Your task to perform on an android device: Go to Google maps Image 0: 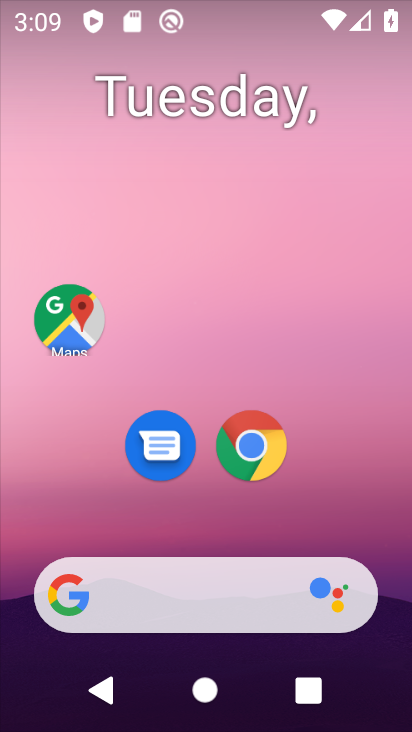
Step 0: click (75, 318)
Your task to perform on an android device: Go to Google maps Image 1: 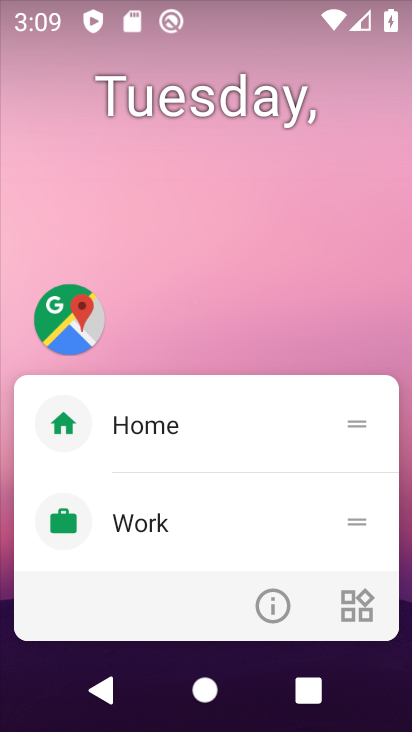
Step 1: click (57, 306)
Your task to perform on an android device: Go to Google maps Image 2: 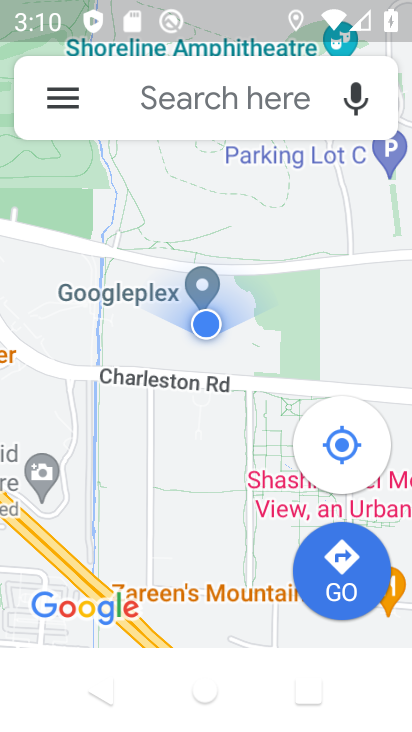
Step 2: task complete